Your task to perform on an android device: Open calendar and show me the fourth week of next month Image 0: 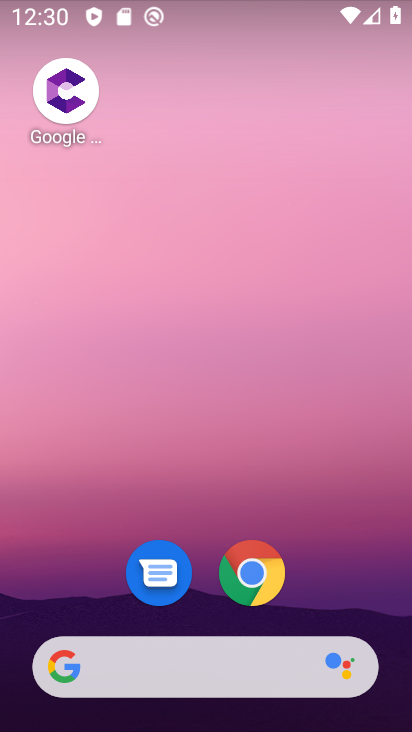
Step 0: drag from (129, 731) to (105, 33)
Your task to perform on an android device: Open calendar and show me the fourth week of next month Image 1: 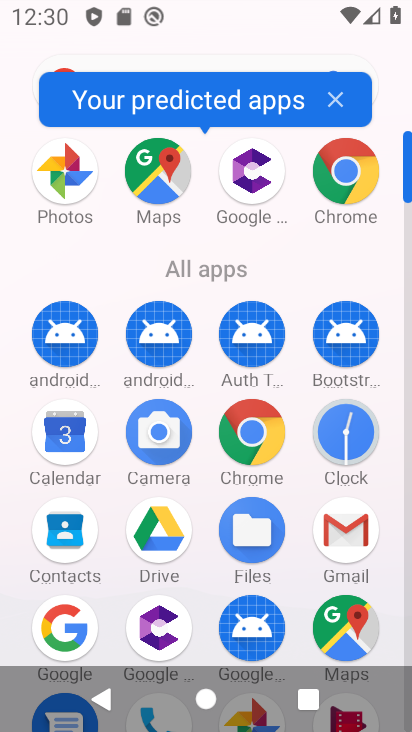
Step 1: click (48, 456)
Your task to perform on an android device: Open calendar and show me the fourth week of next month Image 2: 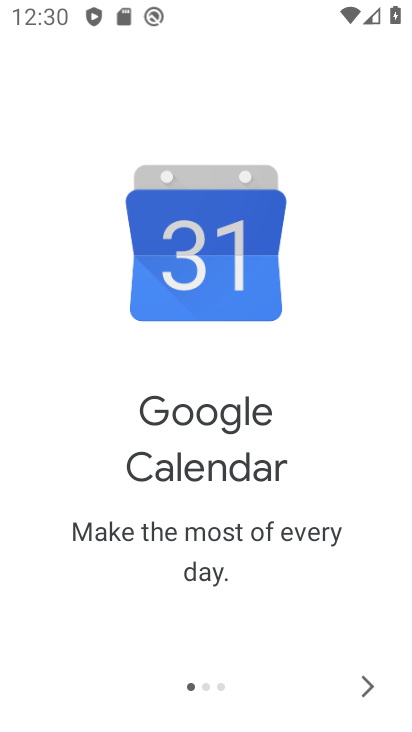
Step 2: click (373, 682)
Your task to perform on an android device: Open calendar and show me the fourth week of next month Image 3: 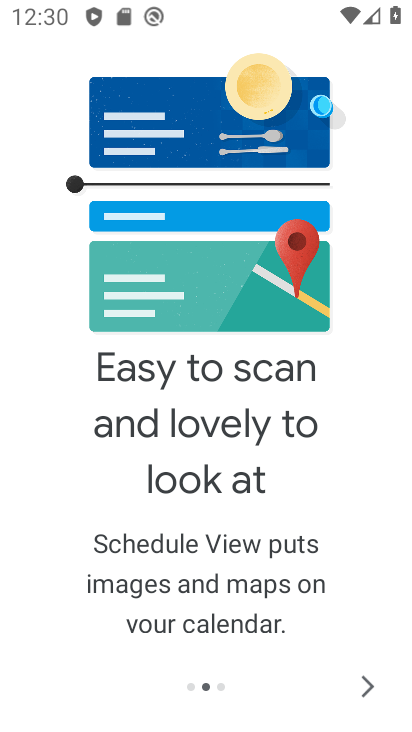
Step 3: click (368, 681)
Your task to perform on an android device: Open calendar and show me the fourth week of next month Image 4: 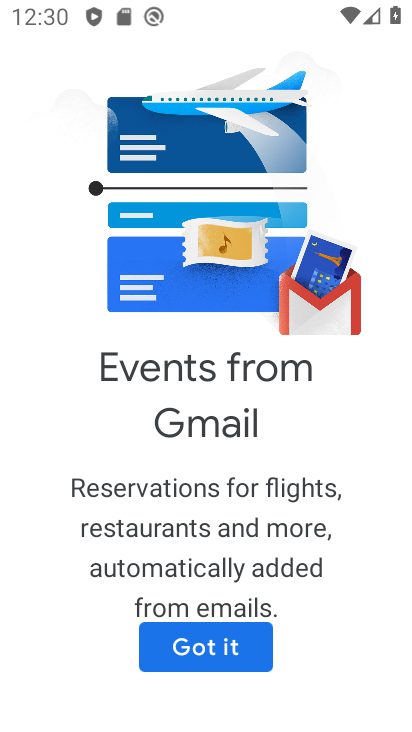
Step 4: click (219, 640)
Your task to perform on an android device: Open calendar and show me the fourth week of next month Image 5: 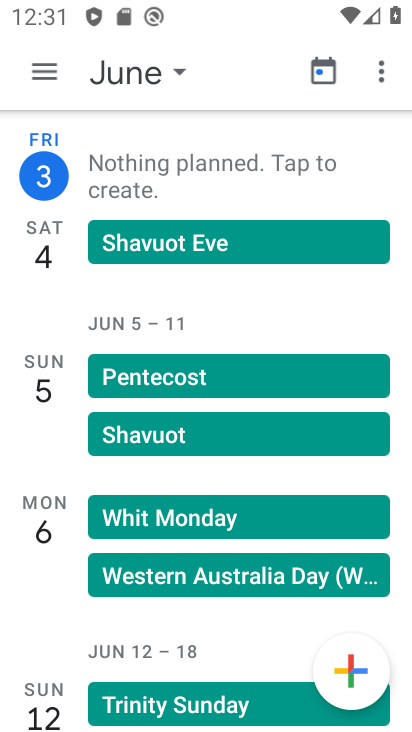
Step 5: click (45, 72)
Your task to perform on an android device: Open calendar and show me the fourth week of next month Image 6: 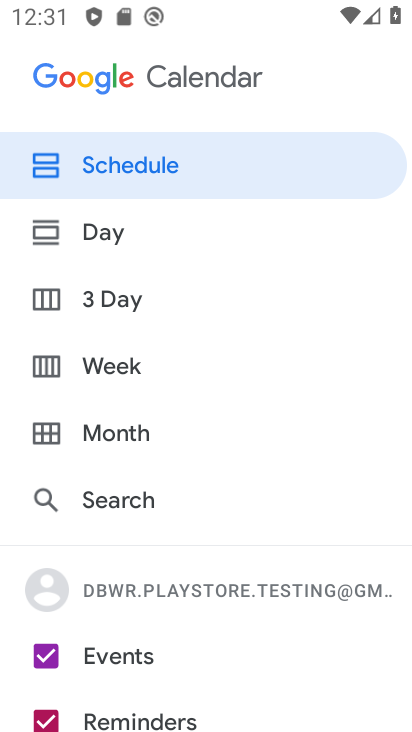
Step 6: click (110, 376)
Your task to perform on an android device: Open calendar and show me the fourth week of next month Image 7: 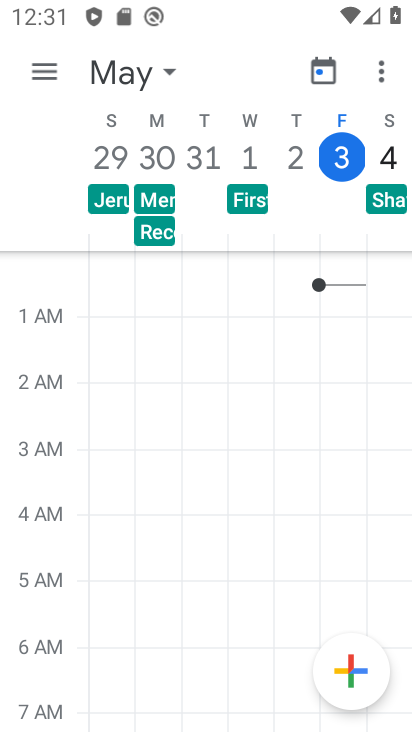
Step 7: drag from (392, 228) to (63, 229)
Your task to perform on an android device: Open calendar and show me the fourth week of next month Image 8: 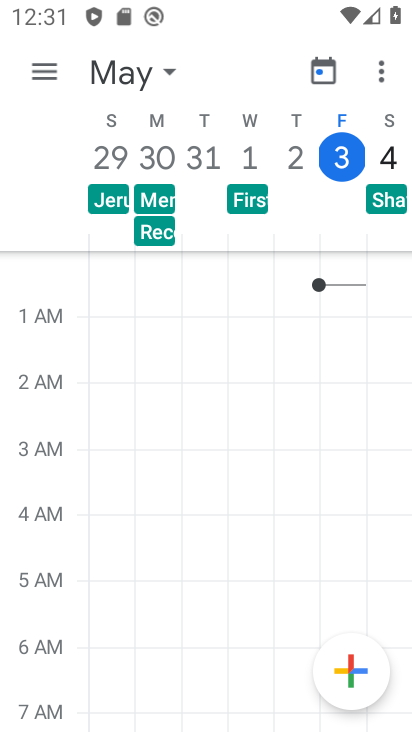
Step 8: click (166, 74)
Your task to perform on an android device: Open calendar and show me the fourth week of next month Image 9: 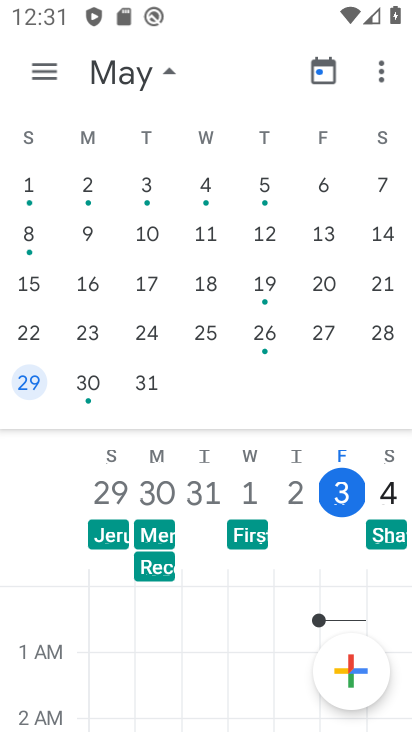
Step 9: drag from (329, 379) to (6, 343)
Your task to perform on an android device: Open calendar and show me the fourth week of next month Image 10: 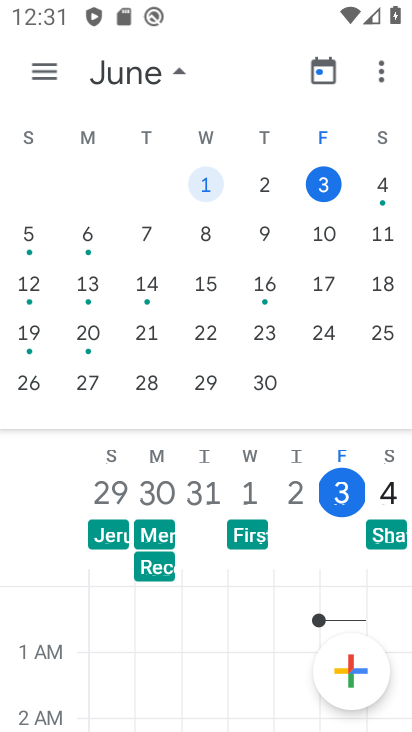
Step 10: drag from (377, 380) to (3, 348)
Your task to perform on an android device: Open calendar and show me the fourth week of next month Image 11: 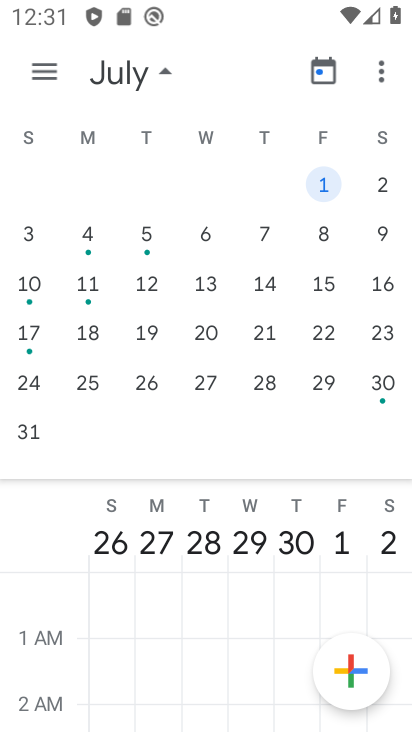
Step 11: click (158, 66)
Your task to perform on an android device: Open calendar and show me the fourth week of next month Image 12: 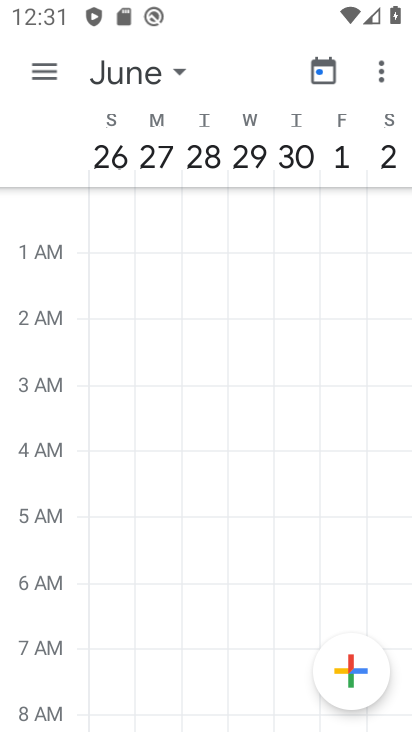
Step 12: task complete